Your task to perform on an android device: check google app version Image 0: 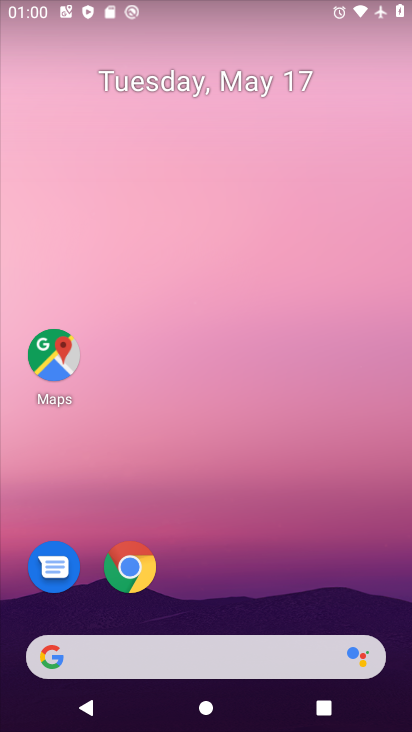
Step 0: click (135, 660)
Your task to perform on an android device: check google app version Image 1: 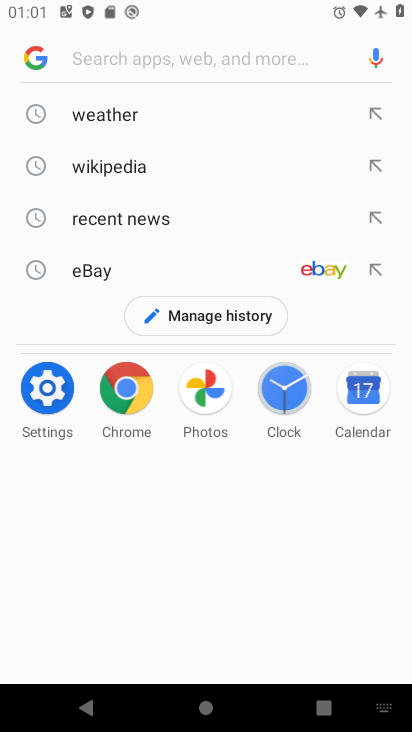
Step 1: click (31, 47)
Your task to perform on an android device: check google app version Image 2: 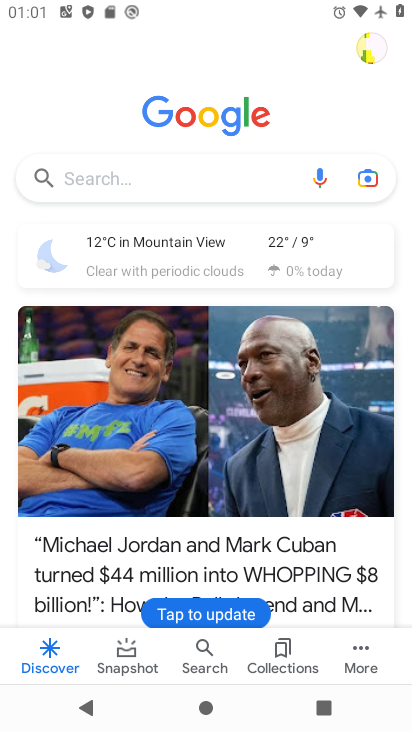
Step 2: click (359, 642)
Your task to perform on an android device: check google app version Image 3: 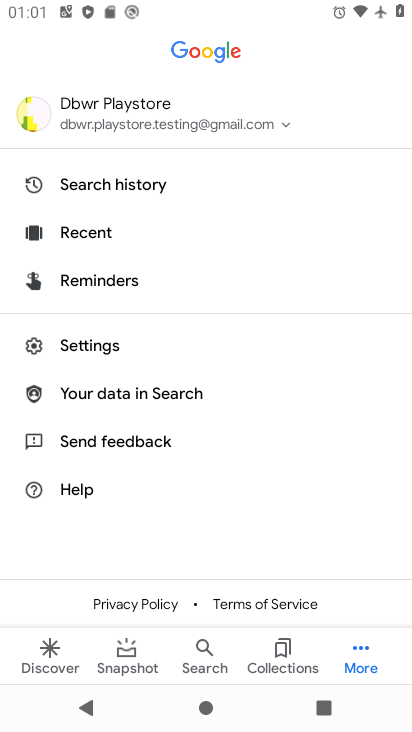
Step 3: click (95, 343)
Your task to perform on an android device: check google app version Image 4: 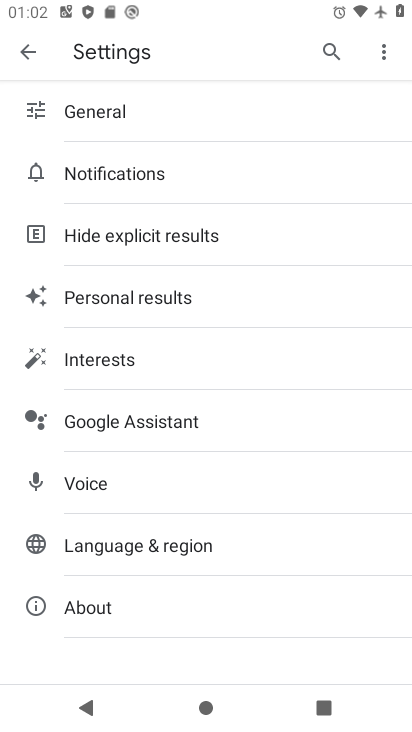
Step 4: click (91, 601)
Your task to perform on an android device: check google app version Image 5: 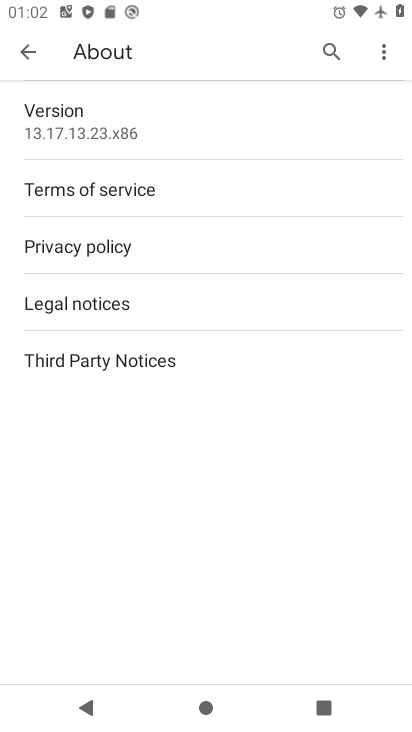
Step 5: task complete